Your task to perform on an android device: Open the phone app and click the voicemail tab. Image 0: 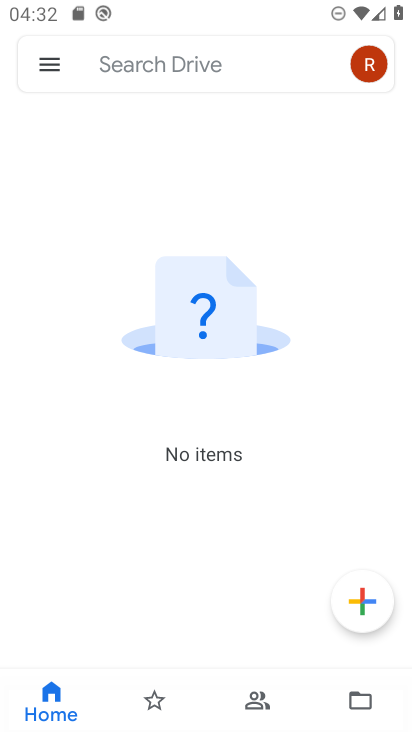
Step 0: press home button
Your task to perform on an android device: Open the phone app and click the voicemail tab. Image 1: 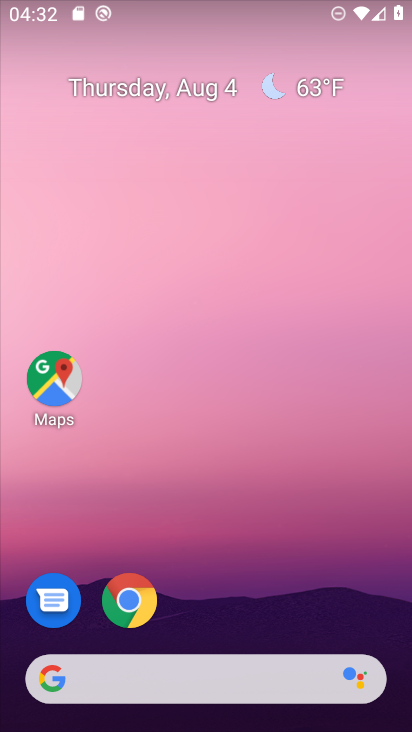
Step 1: drag from (305, 567) to (327, 107)
Your task to perform on an android device: Open the phone app and click the voicemail tab. Image 2: 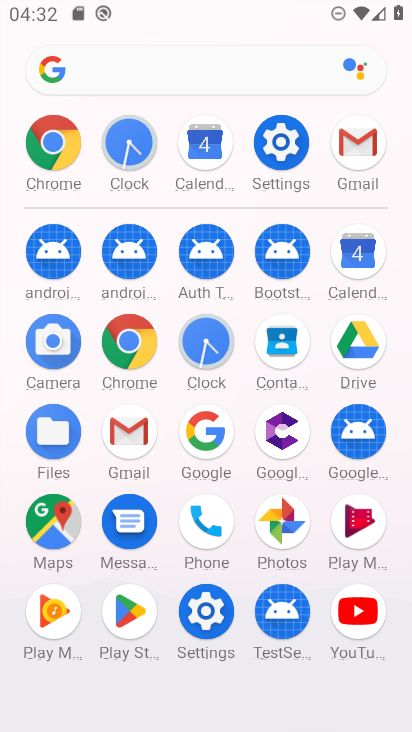
Step 2: click (217, 519)
Your task to perform on an android device: Open the phone app and click the voicemail tab. Image 3: 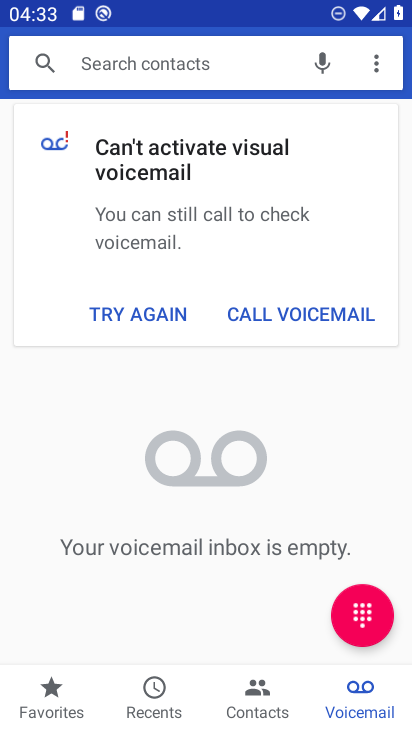
Step 3: click (347, 688)
Your task to perform on an android device: Open the phone app and click the voicemail tab. Image 4: 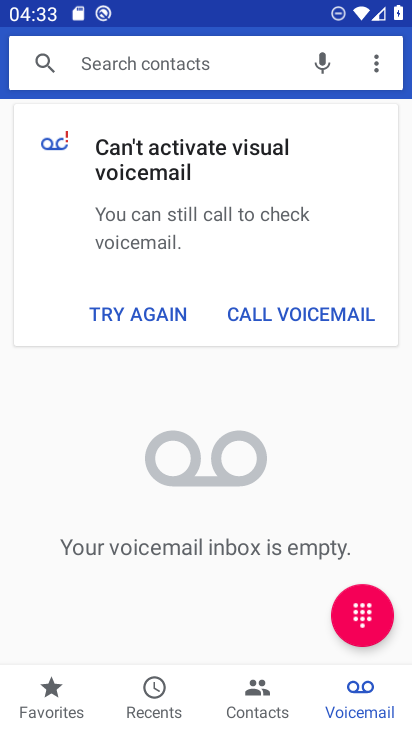
Step 4: task complete